Your task to perform on an android device: Open privacy settings Image 0: 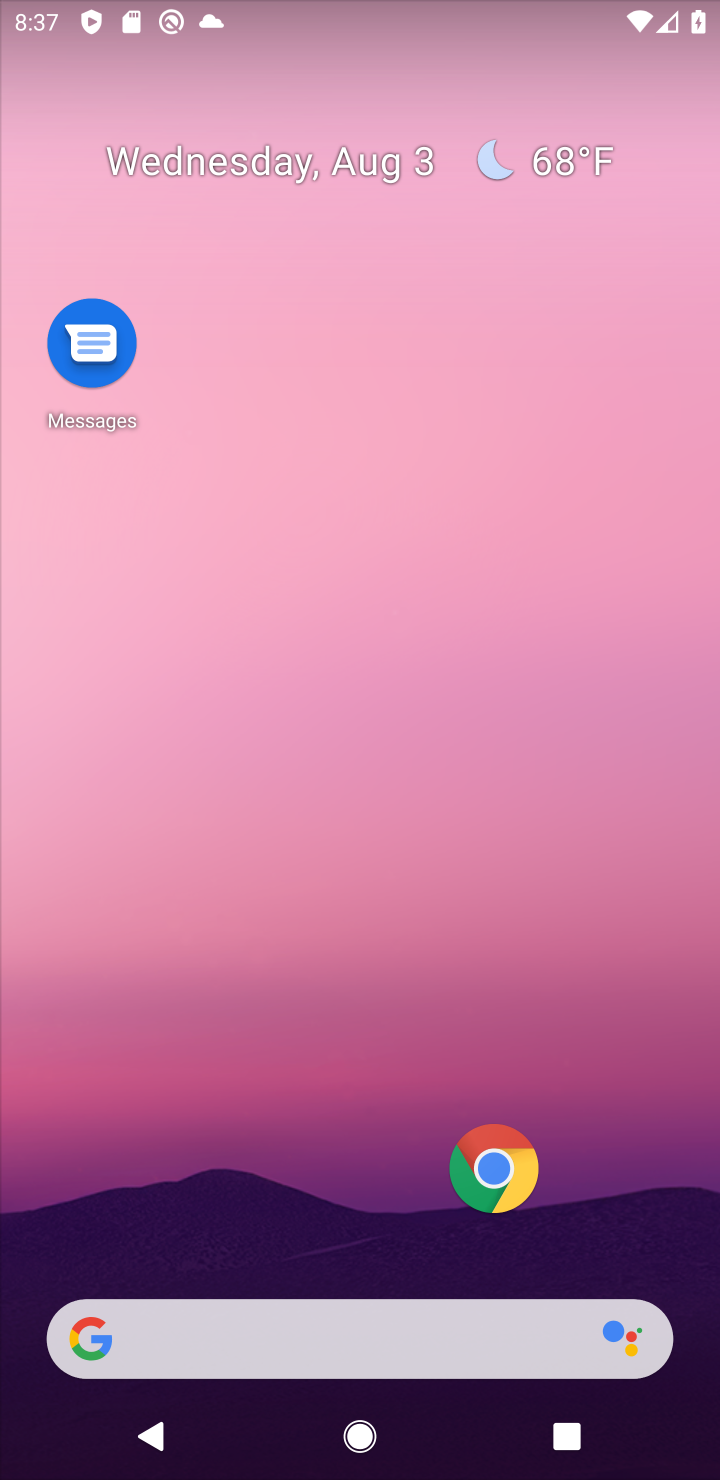
Step 0: drag from (411, 1258) to (578, 13)
Your task to perform on an android device: Open privacy settings Image 1: 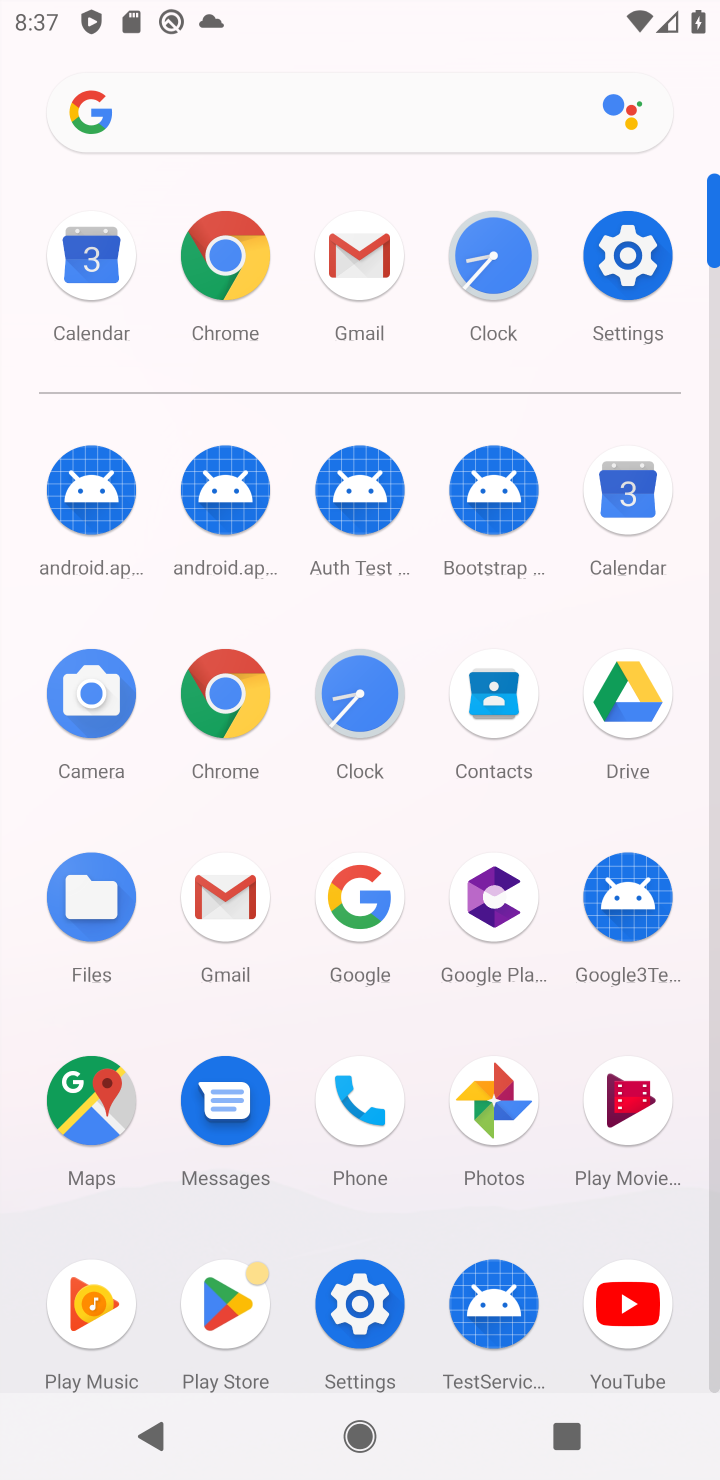
Step 1: click (622, 276)
Your task to perform on an android device: Open privacy settings Image 2: 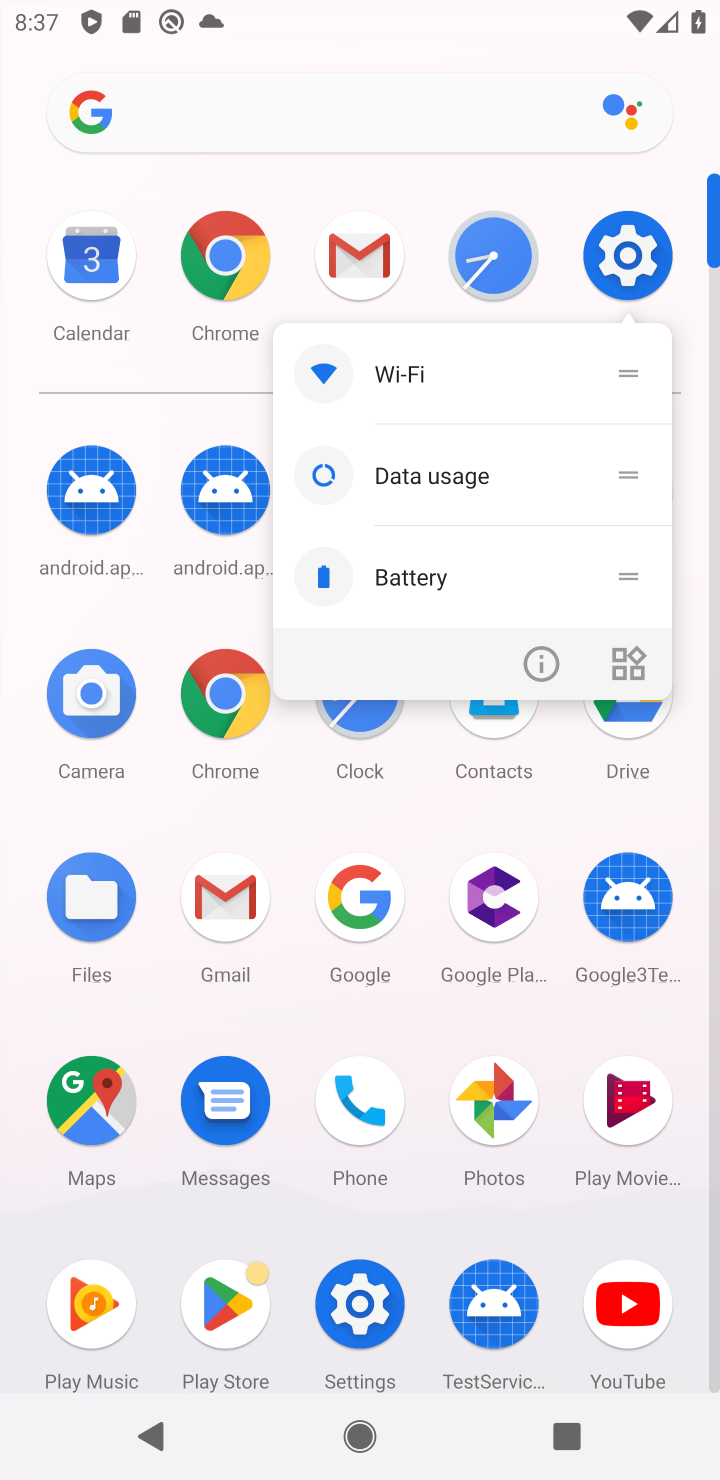
Step 2: click (358, 1305)
Your task to perform on an android device: Open privacy settings Image 3: 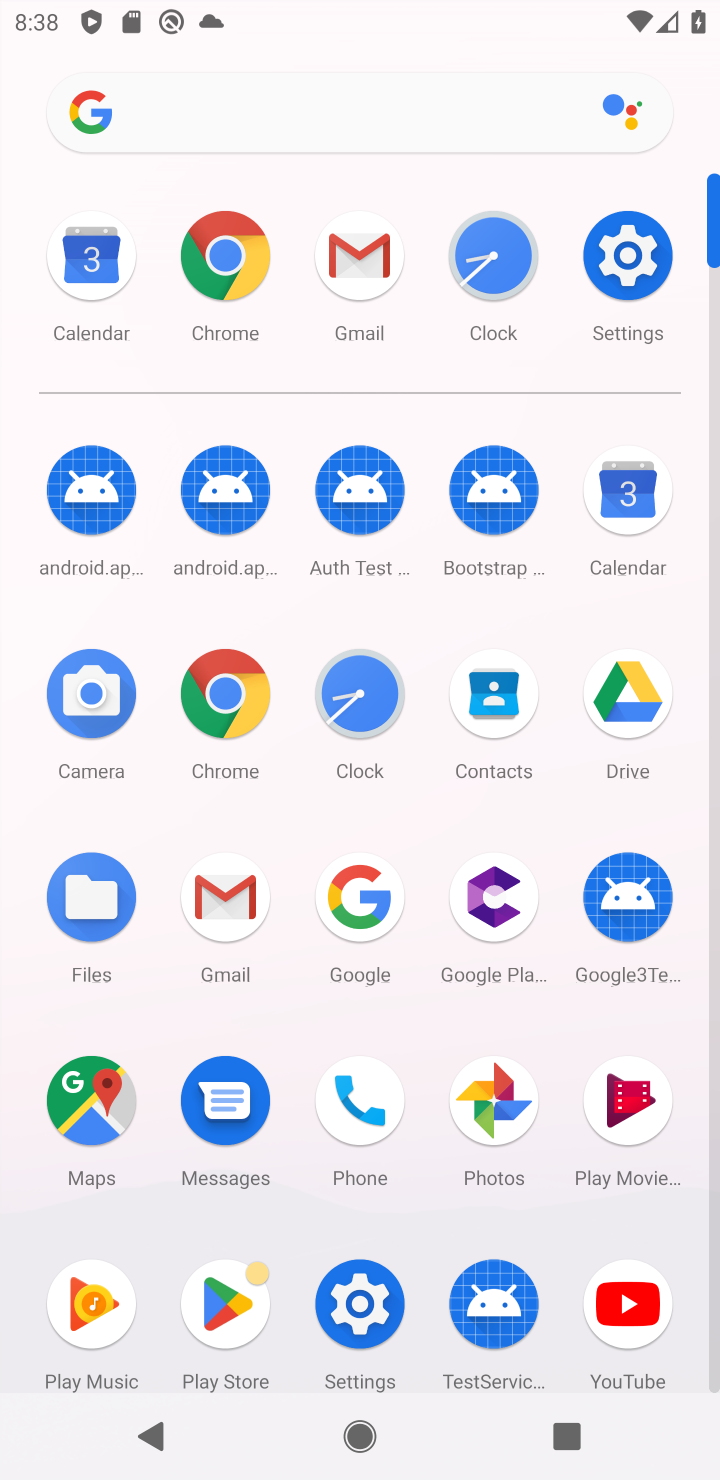
Step 3: click (364, 1320)
Your task to perform on an android device: Open privacy settings Image 4: 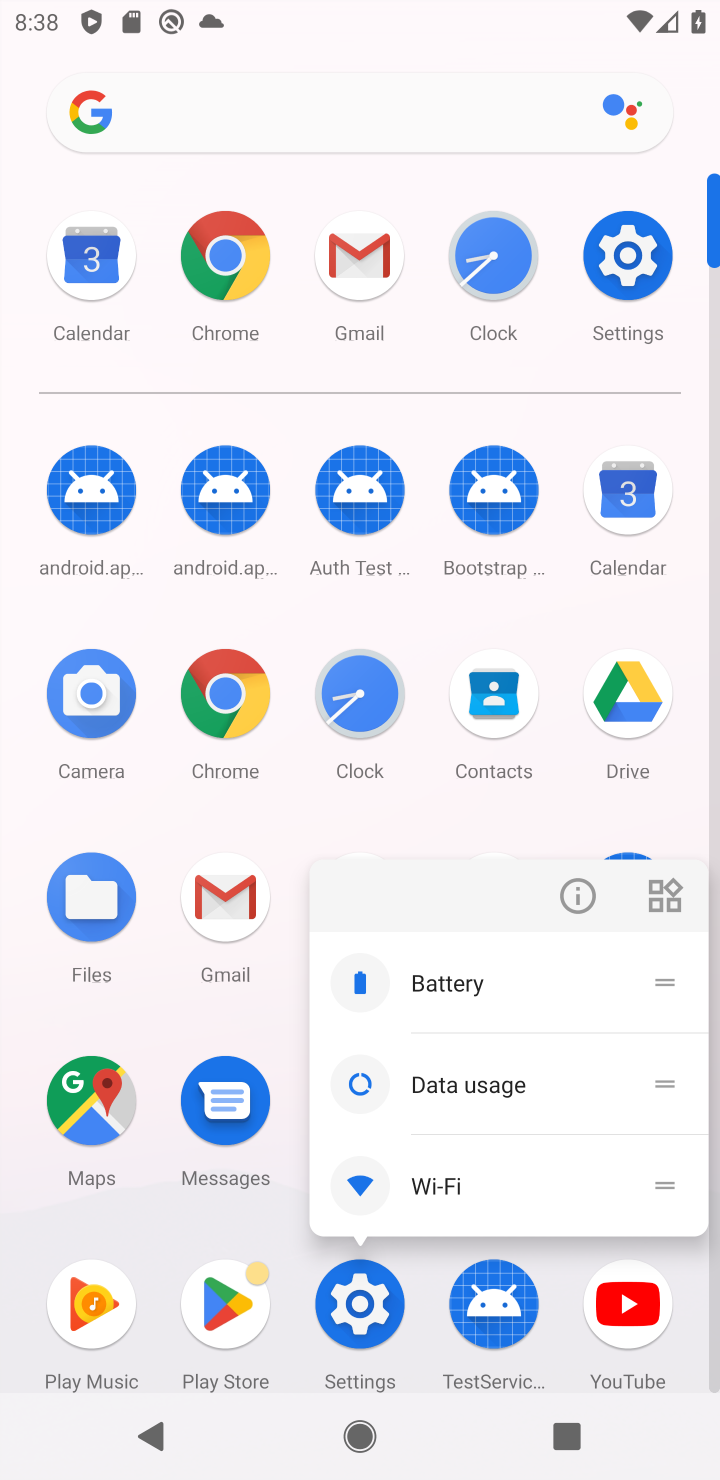
Step 4: click (351, 1289)
Your task to perform on an android device: Open privacy settings Image 5: 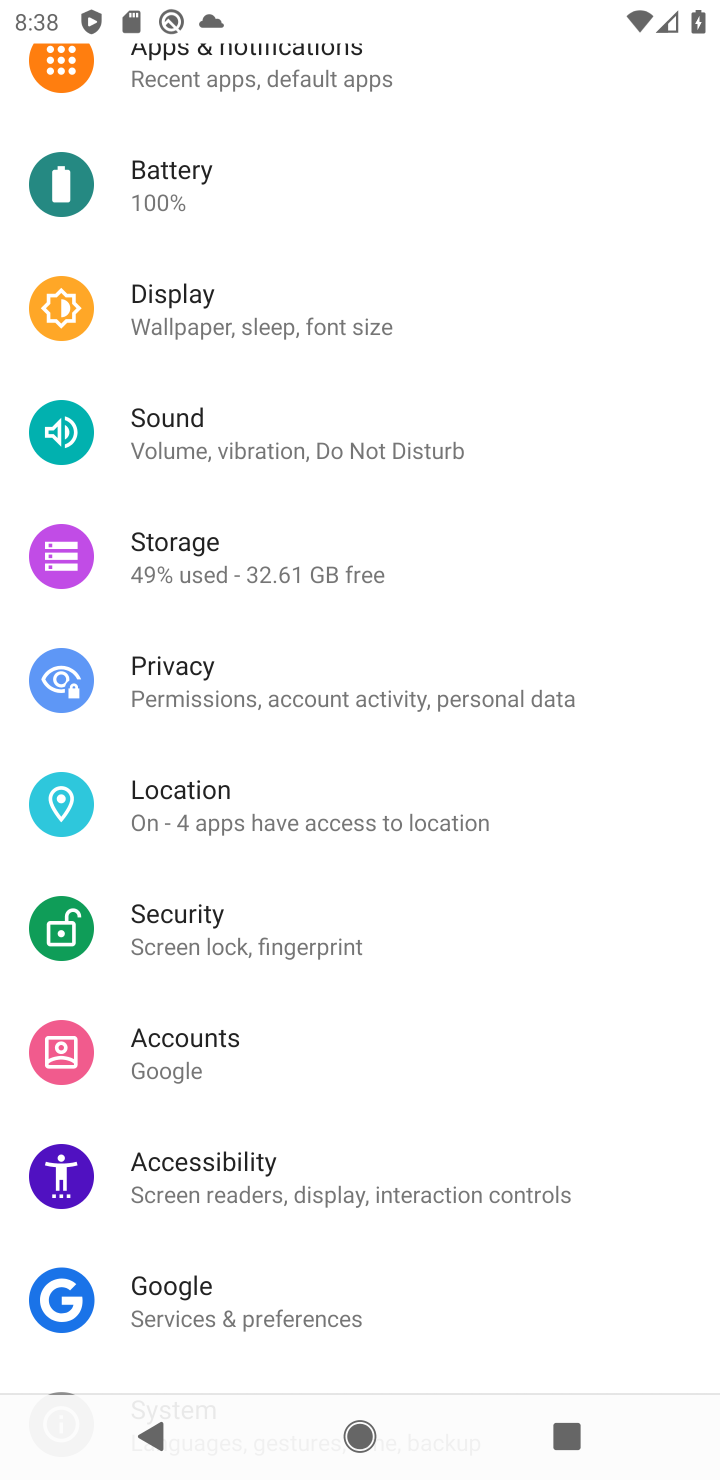
Step 5: click (229, 712)
Your task to perform on an android device: Open privacy settings Image 6: 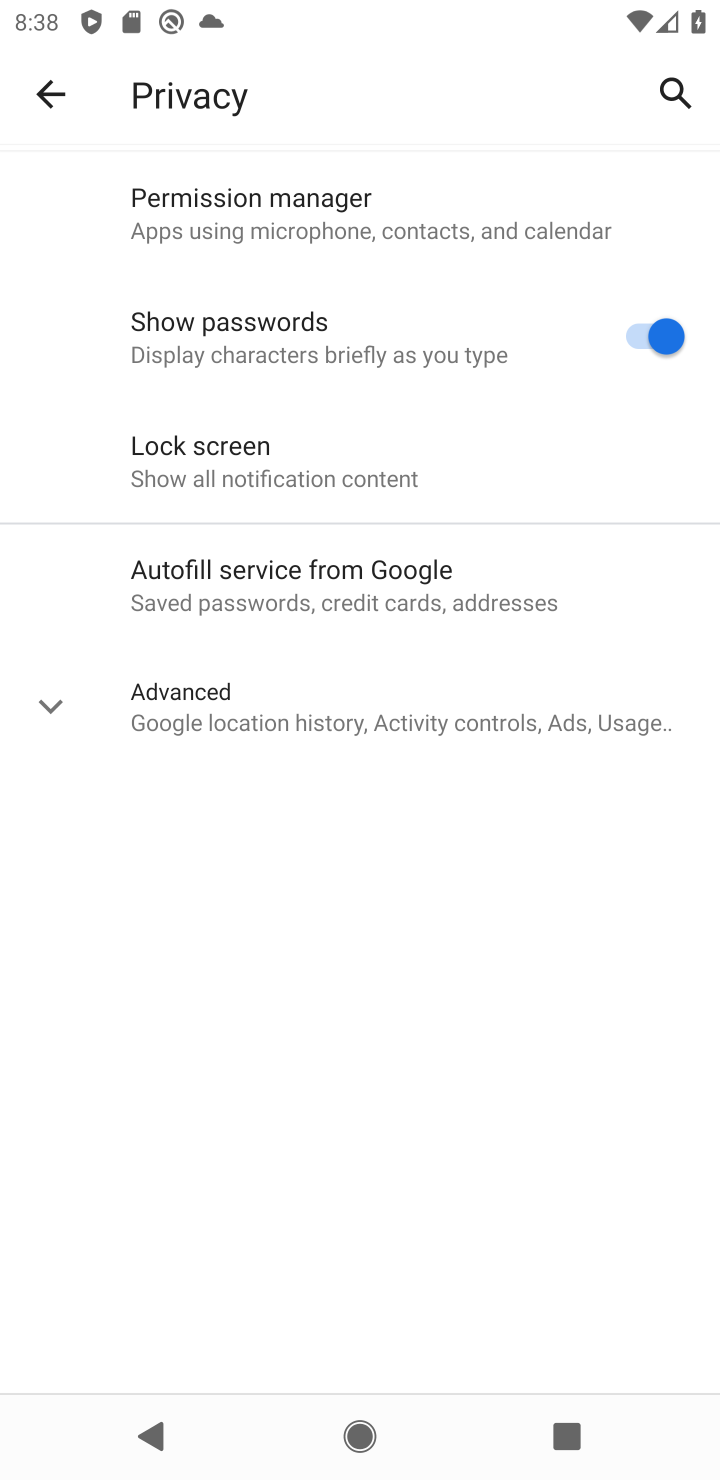
Step 6: click (282, 726)
Your task to perform on an android device: Open privacy settings Image 7: 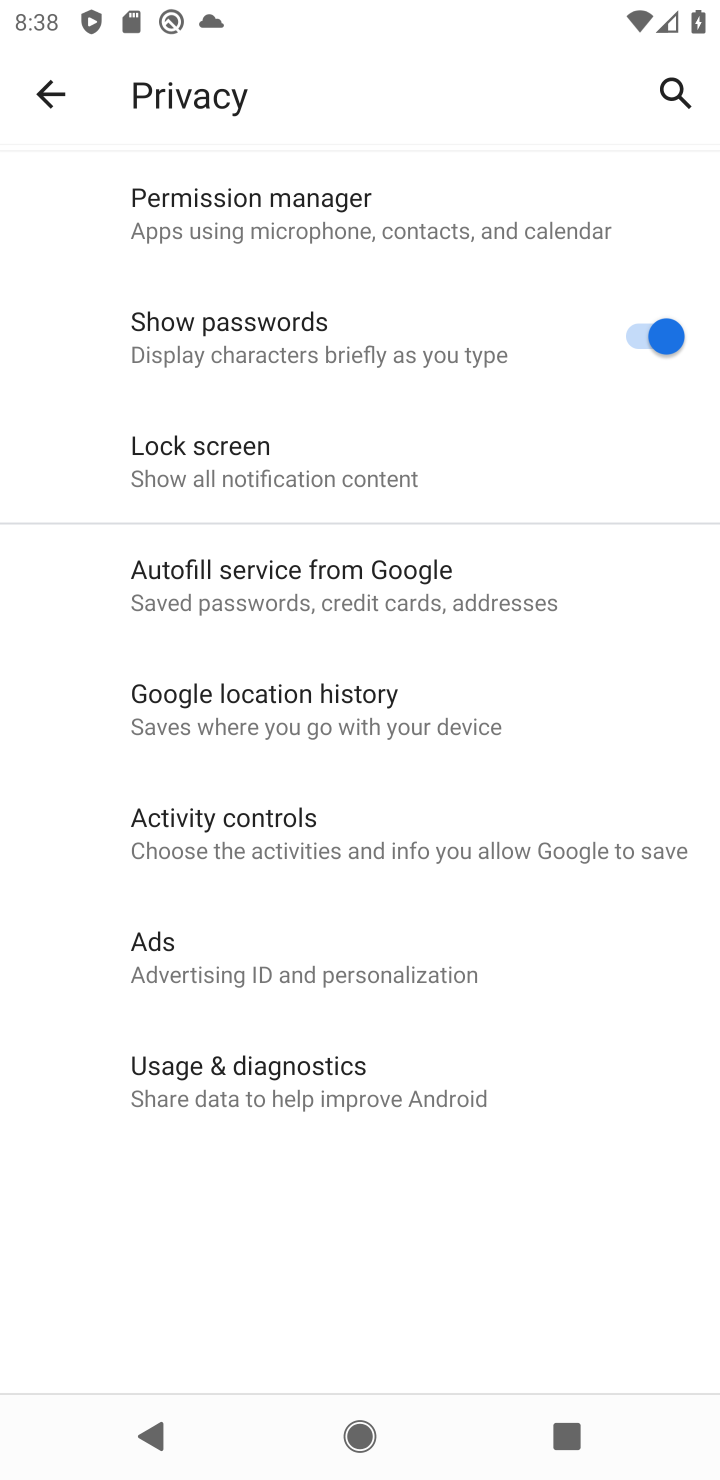
Step 7: task complete